Your task to perform on an android device: turn off location history Image 0: 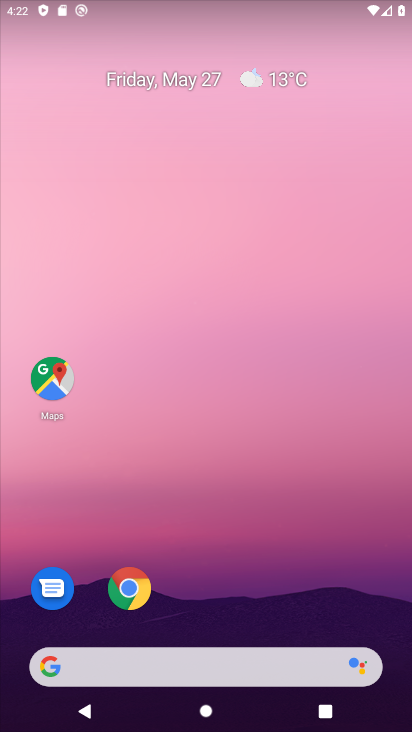
Step 0: drag from (223, 600) to (283, 112)
Your task to perform on an android device: turn off location history Image 1: 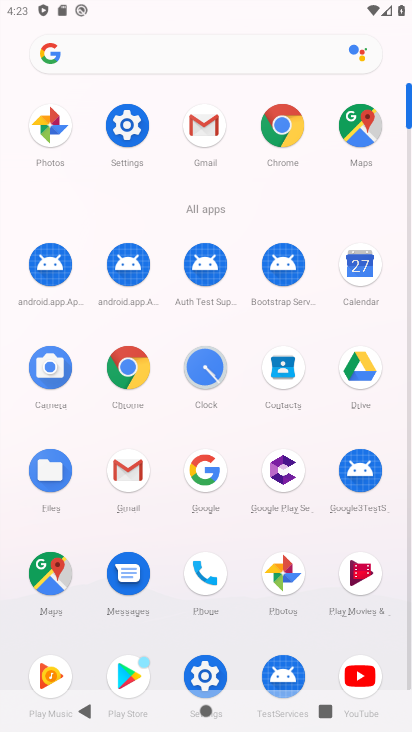
Step 1: click (124, 125)
Your task to perform on an android device: turn off location history Image 2: 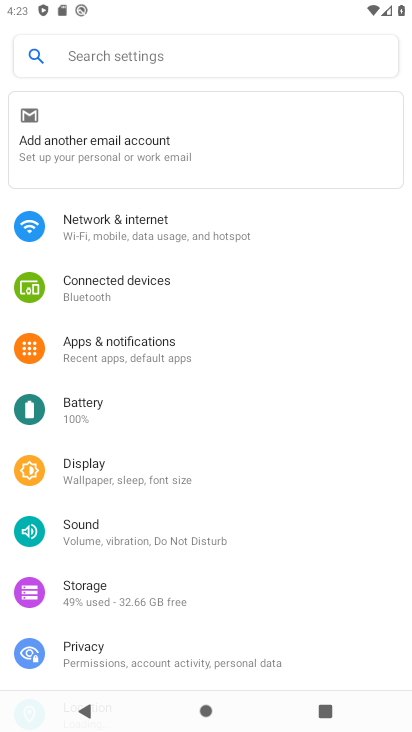
Step 2: drag from (113, 629) to (193, 197)
Your task to perform on an android device: turn off location history Image 3: 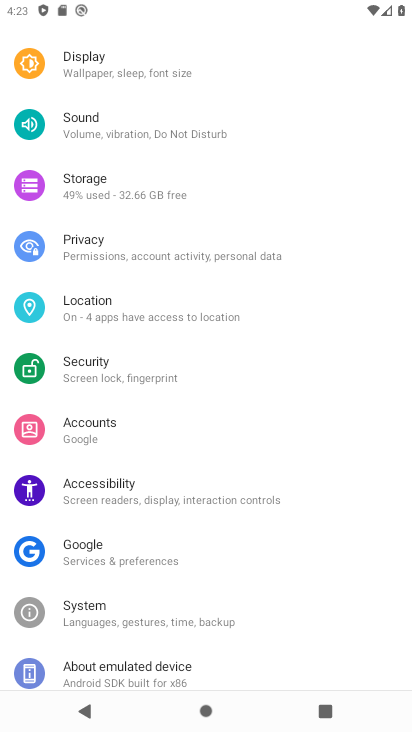
Step 3: click (103, 314)
Your task to perform on an android device: turn off location history Image 4: 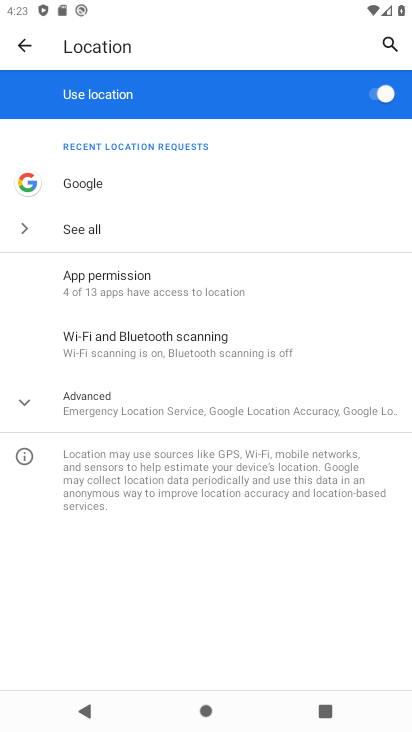
Step 4: click (116, 406)
Your task to perform on an android device: turn off location history Image 5: 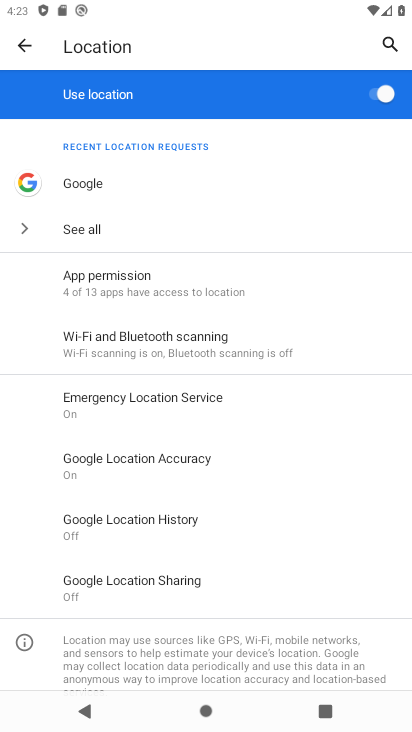
Step 5: click (131, 519)
Your task to perform on an android device: turn off location history Image 6: 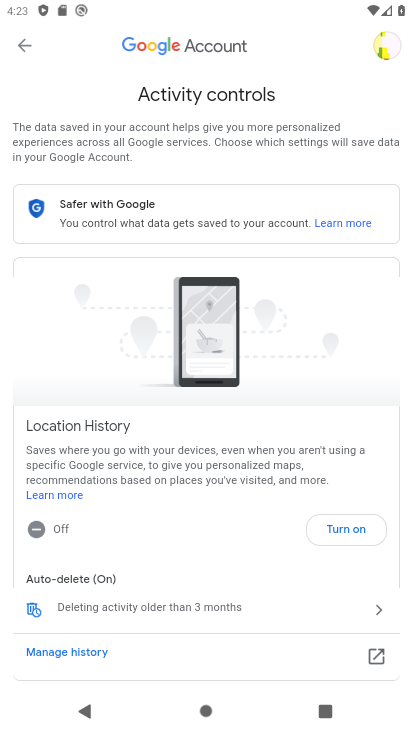
Step 6: task complete